Your task to perform on an android device: Empty the shopping cart on costco.com. Image 0: 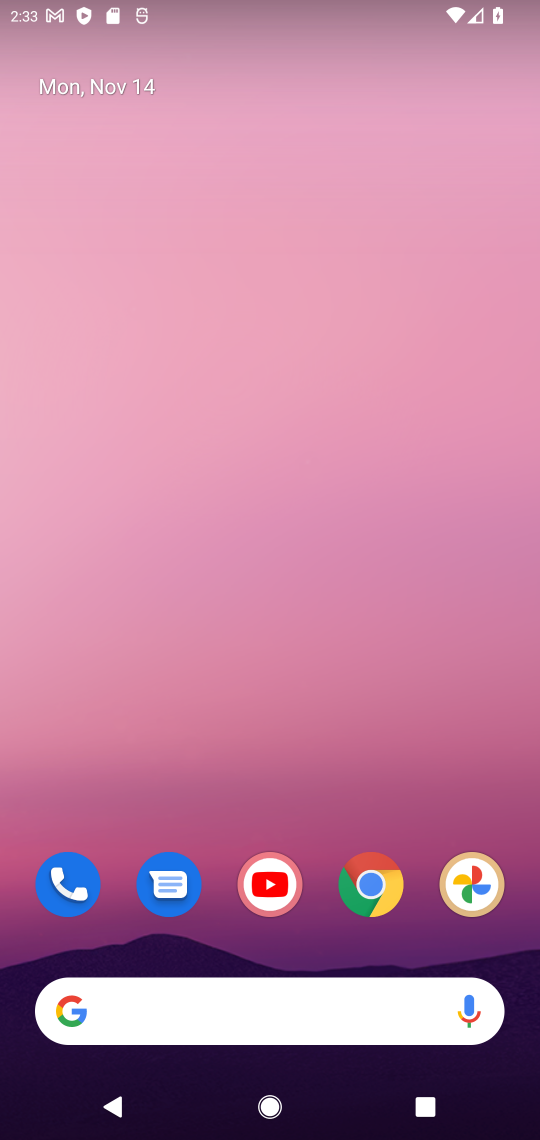
Step 0: click (366, 882)
Your task to perform on an android device: Empty the shopping cart on costco.com. Image 1: 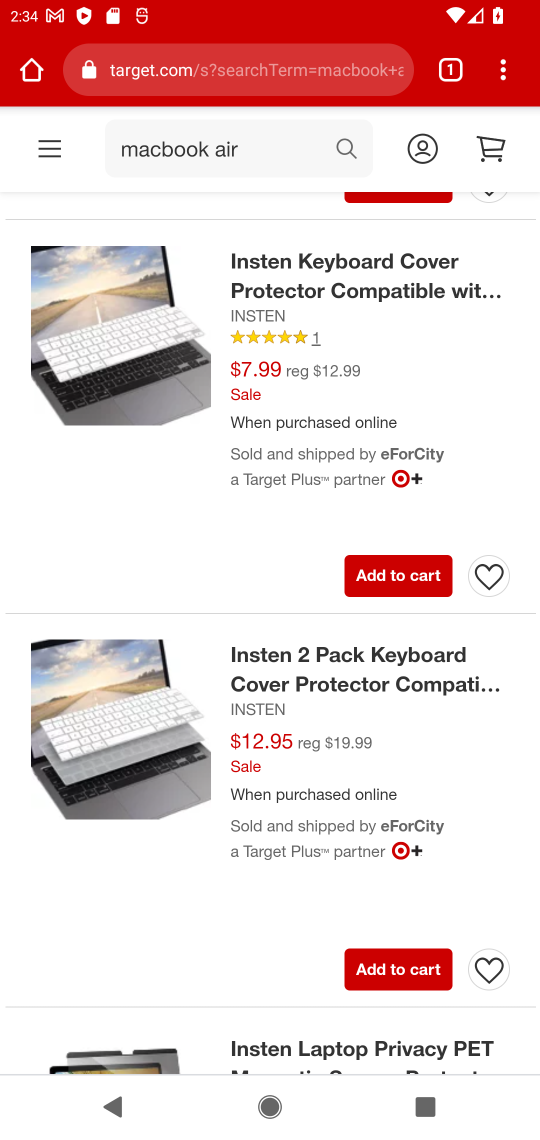
Step 1: click (273, 69)
Your task to perform on an android device: Empty the shopping cart on costco.com. Image 2: 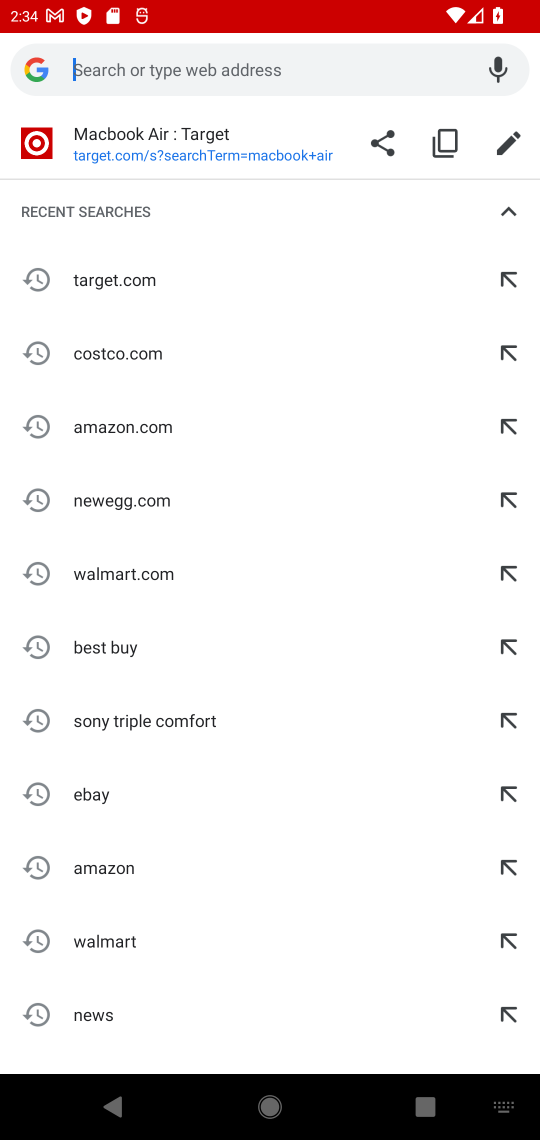
Step 2: click (103, 349)
Your task to perform on an android device: Empty the shopping cart on costco.com. Image 3: 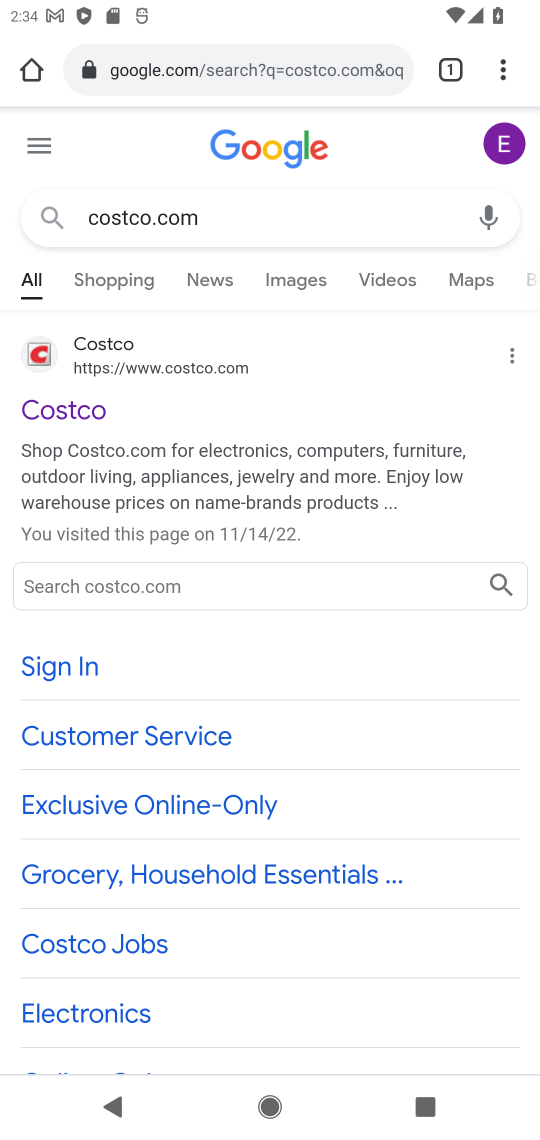
Step 3: click (228, 364)
Your task to perform on an android device: Empty the shopping cart on costco.com. Image 4: 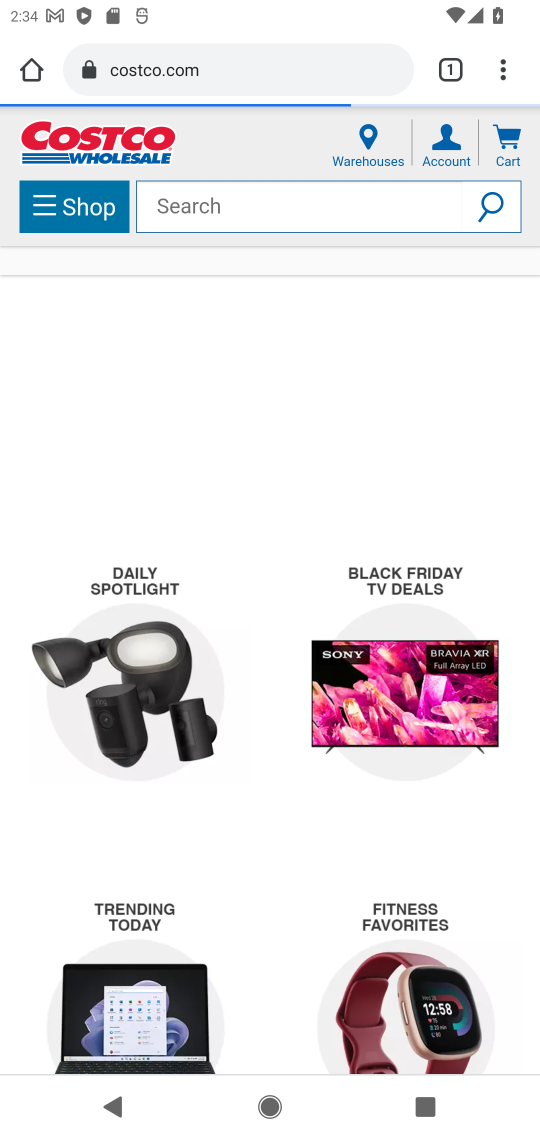
Step 4: click (513, 153)
Your task to perform on an android device: Empty the shopping cart on costco.com. Image 5: 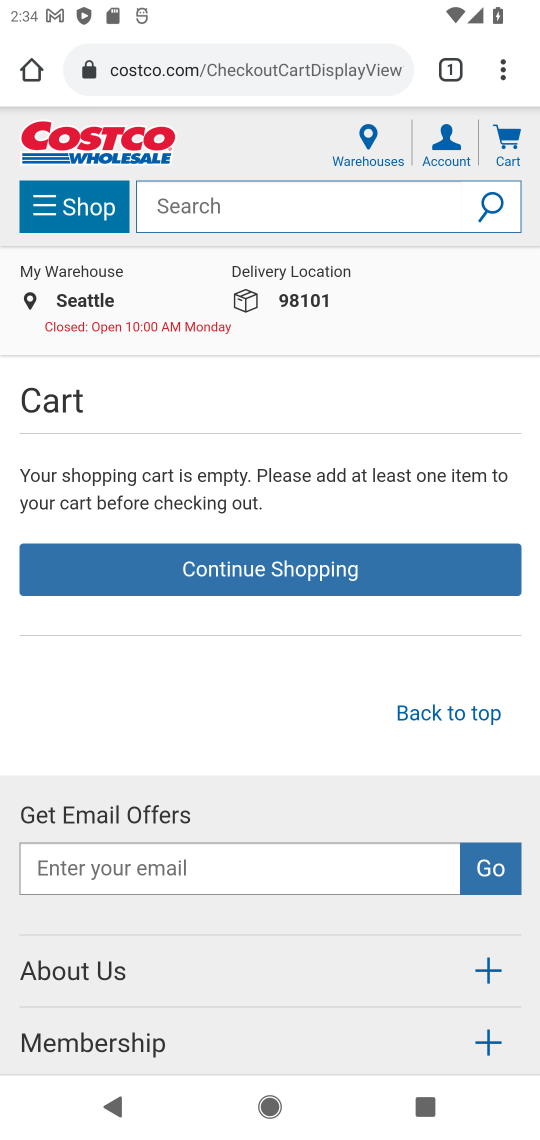
Step 5: task complete